Your task to perform on an android device: View the shopping cart on walmart. Search for apple airpods on walmart, select the first entry, add it to the cart, then select checkout. Image 0: 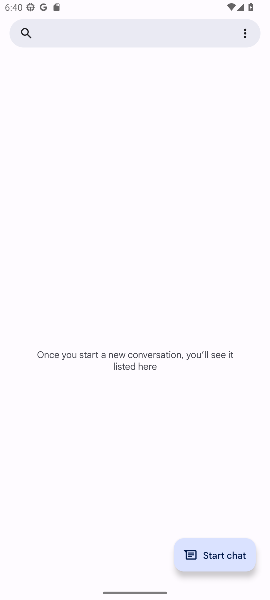
Step 0: press home button
Your task to perform on an android device: View the shopping cart on walmart. Search for apple airpods on walmart, select the first entry, add it to the cart, then select checkout. Image 1: 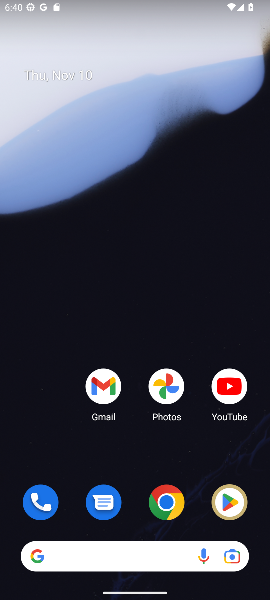
Step 1: drag from (129, 498) to (147, 27)
Your task to perform on an android device: View the shopping cart on walmart. Search for apple airpods on walmart, select the first entry, add it to the cart, then select checkout. Image 2: 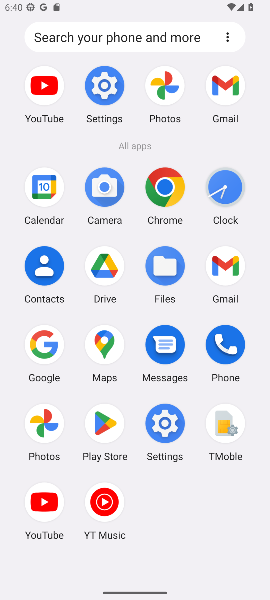
Step 2: click (43, 343)
Your task to perform on an android device: View the shopping cart on walmart. Search for apple airpods on walmart, select the first entry, add it to the cart, then select checkout. Image 3: 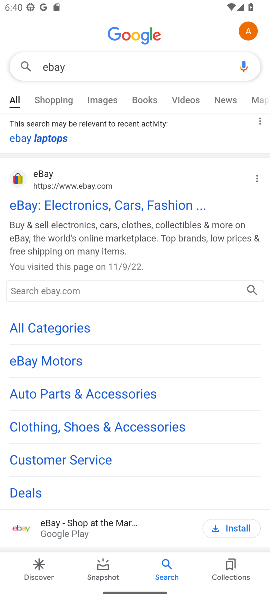
Step 3: click (84, 71)
Your task to perform on an android device: View the shopping cart on walmart. Search for apple airpods on walmart, select the first entry, add it to the cart, then select checkout. Image 4: 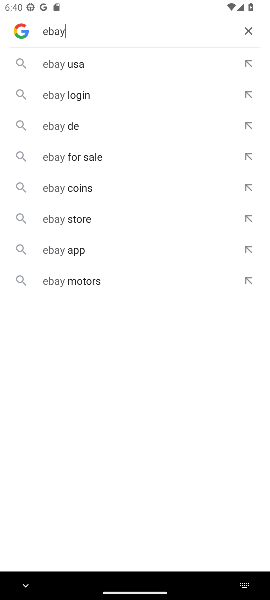
Step 4: click (241, 27)
Your task to perform on an android device: View the shopping cart on walmart. Search for apple airpods on walmart, select the first entry, add it to the cart, then select checkout. Image 5: 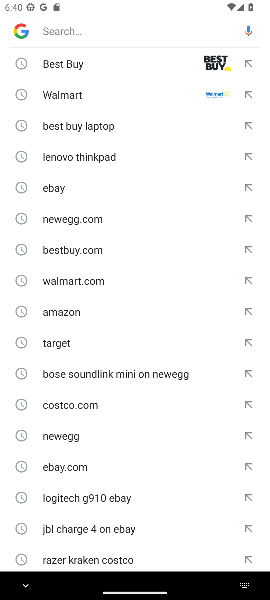
Step 5: type "razer blade"
Your task to perform on an android device: View the shopping cart on walmart. Search for apple airpods on walmart, select the first entry, add it to the cart, then select checkout. Image 6: 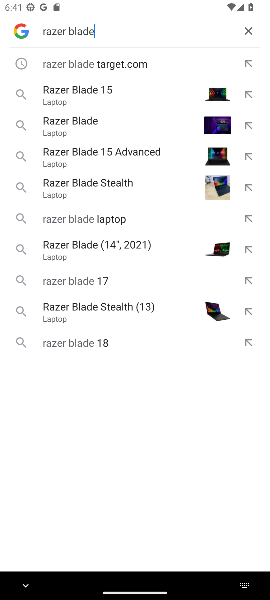
Step 6: click (247, 33)
Your task to perform on an android device: View the shopping cart on walmart. Search for apple airpods on walmart, select the first entry, add it to the cart, then select checkout. Image 7: 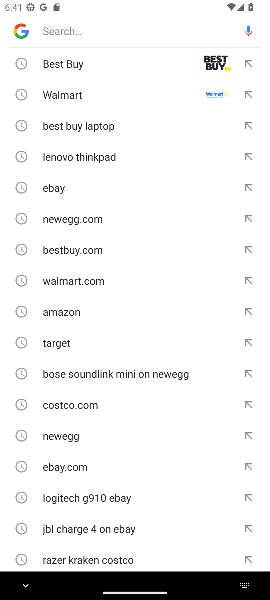
Step 7: type "walmart"
Your task to perform on an android device: View the shopping cart on walmart. Search for apple airpods on walmart, select the first entry, add it to the cart, then select checkout. Image 8: 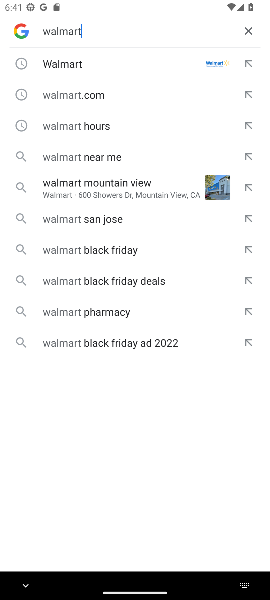
Step 8: click (156, 62)
Your task to perform on an android device: View the shopping cart on walmart. Search for apple airpods on walmart, select the first entry, add it to the cart, then select checkout. Image 9: 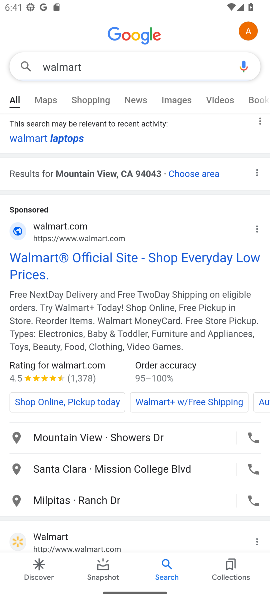
Step 9: click (44, 234)
Your task to perform on an android device: View the shopping cart on walmart. Search for apple airpods on walmart, select the first entry, add it to the cart, then select checkout. Image 10: 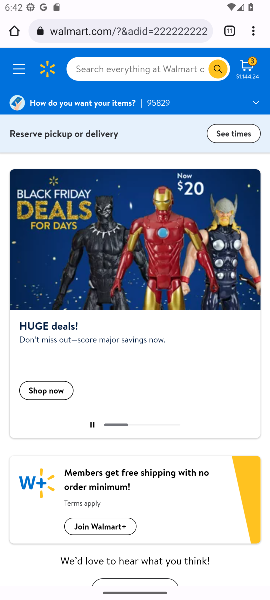
Step 10: click (119, 70)
Your task to perform on an android device: View the shopping cart on walmart. Search for apple airpods on walmart, select the first entry, add it to the cart, then select checkout. Image 11: 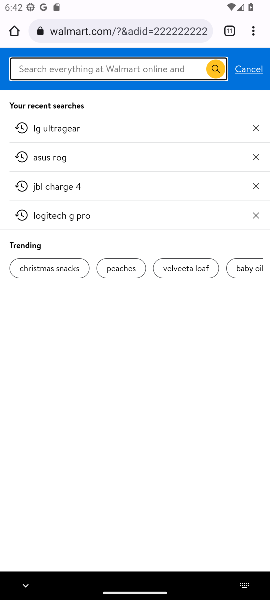
Step 11: type " apple airpods"
Your task to perform on an android device: View the shopping cart on walmart. Search for apple airpods on walmart, select the first entry, add it to the cart, then select checkout. Image 12: 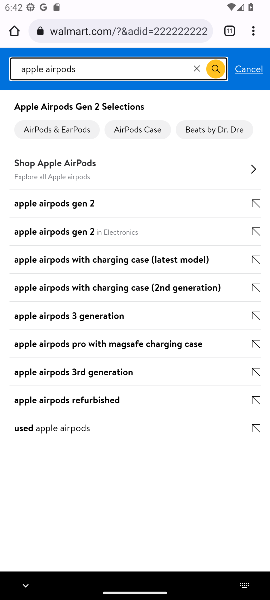
Step 12: click (218, 66)
Your task to perform on an android device: View the shopping cart on walmart. Search for apple airpods on walmart, select the first entry, add it to the cart, then select checkout. Image 13: 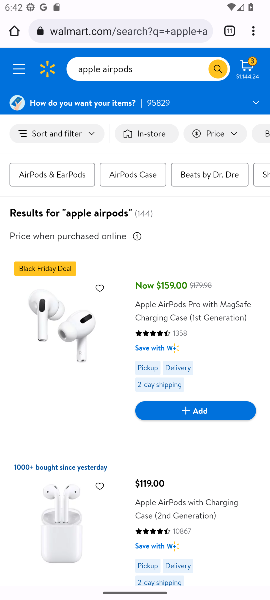
Step 13: click (193, 411)
Your task to perform on an android device: View the shopping cart on walmart. Search for apple airpods on walmart, select the first entry, add it to the cart, then select checkout. Image 14: 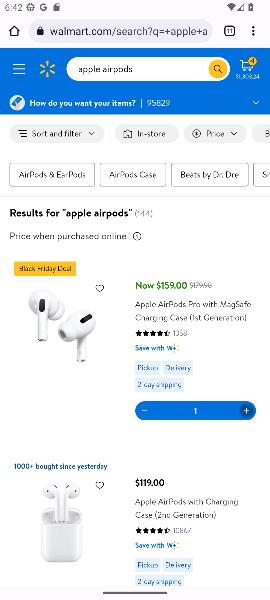
Step 14: click (251, 73)
Your task to perform on an android device: View the shopping cart on walmart. Search for apple airpods on walmart, select the first entry, add it to the cart, then select checkout. Image 15: 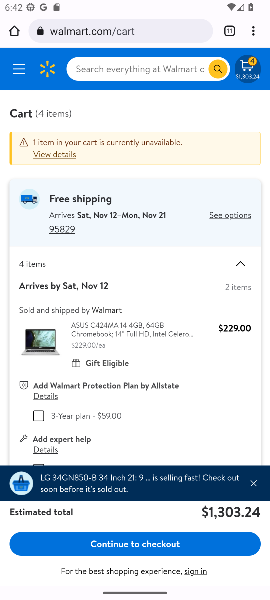
Step 15: click (140, 538)
Your task to perform on an android device: View the shopping cart on walmart. Search for apple airpods on walmart, select the first entry, add it to the cart, then select checkout. Image 16: 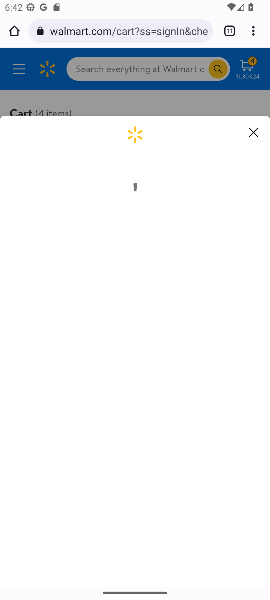
Step 16: task complete